Your task to perform on an android device: add a contact Image 0: 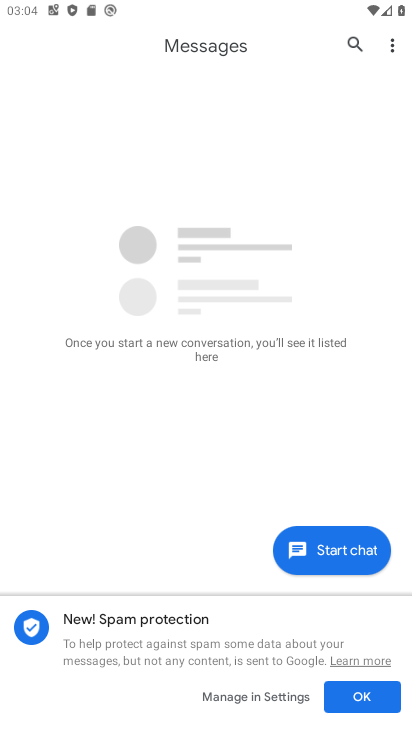
Step 0: press home button
Your task to perform on an android device: add a contact Image 1: 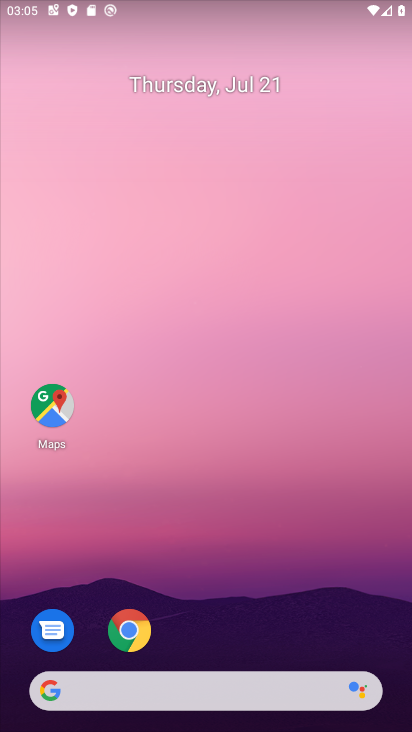
Step 1: drag from (333, 655) to (304, 122)
Your task to perform on an android device: add a contact Image 2: 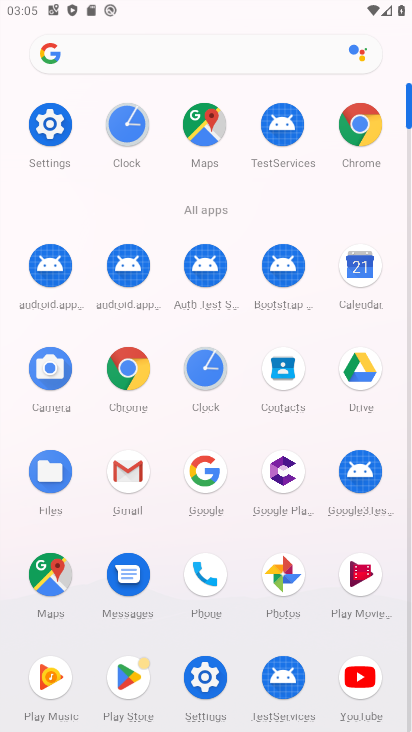
Step 2: click (289, 374)
Your task to perform on an android device: add a contact Image 3: 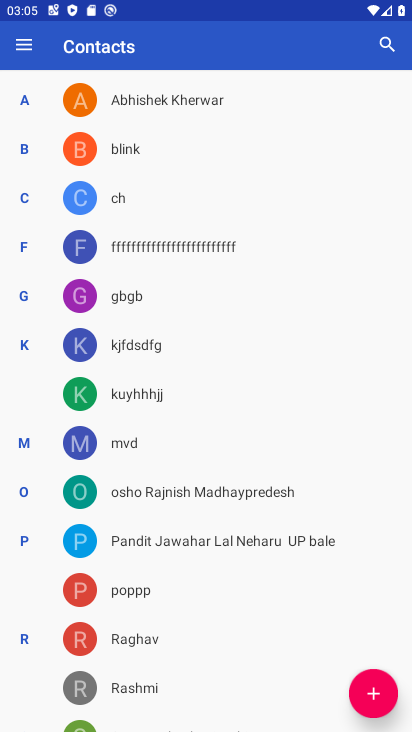
Step 3: click (375, 682)
Your task to perform on an android device: add a contact Image 4: 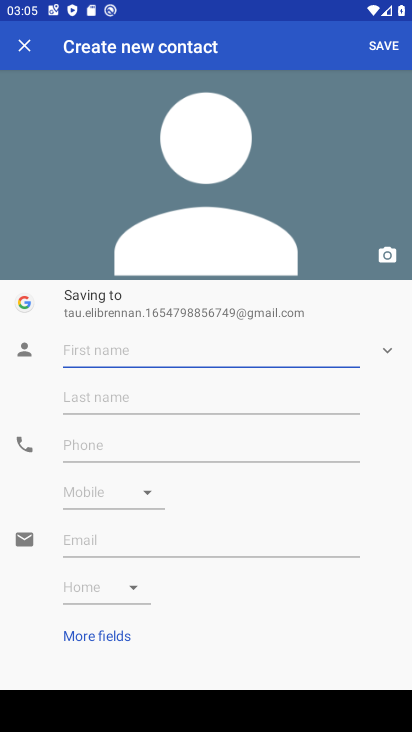
Step 4: type ",,,,,,,"
Your task to perform on an android device: add a contact Image 5: 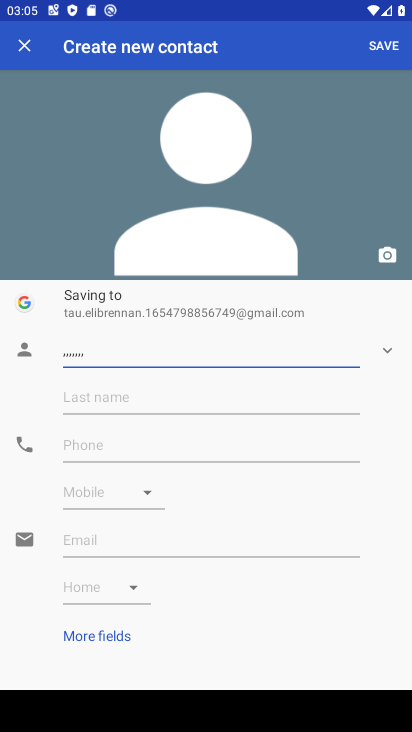
Step 5: click (188, 451)
Your task to perform on an android device: add a contact Image 6: 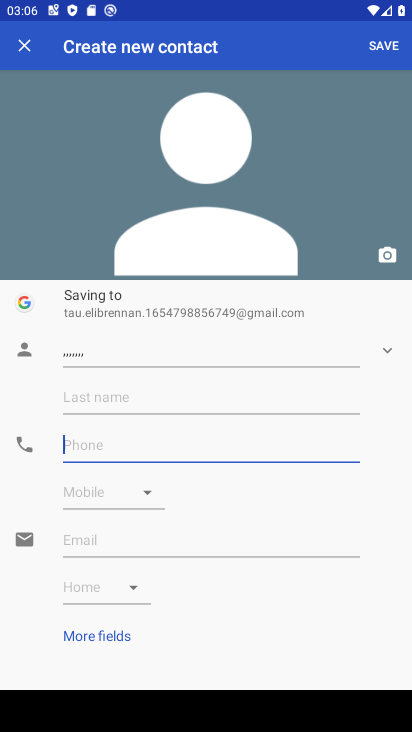
Step 6: type "98765432"
Your task to perform on an android device: add a contact Image 7: 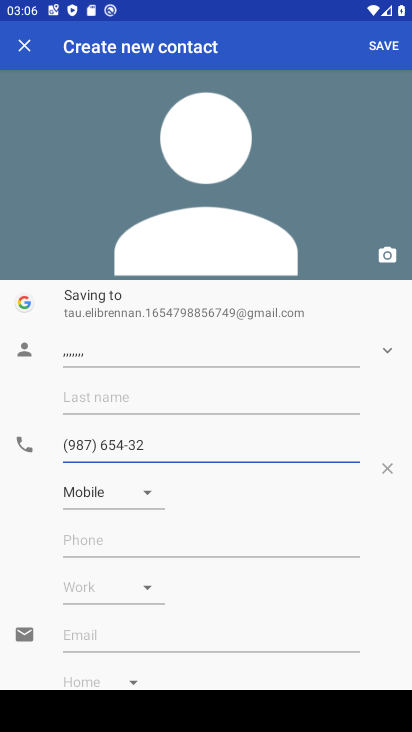
Step 7: click (383, 39)
Your task to perform on an android device: add a contact Image 8: 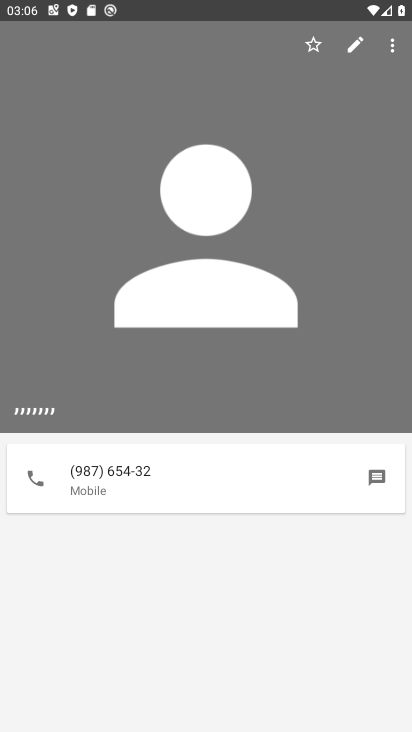
Step 8: task complete